Your task to perform on an android device: move a message to another label in the gmail app Image 0: 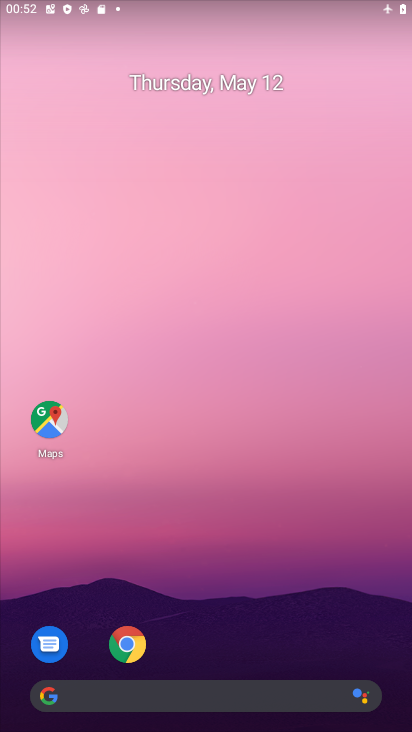
Step 0: drag from (260, 624) to (267, 308)
Your task to perform on an android device: move a message to another label in the gmail app Image 1: 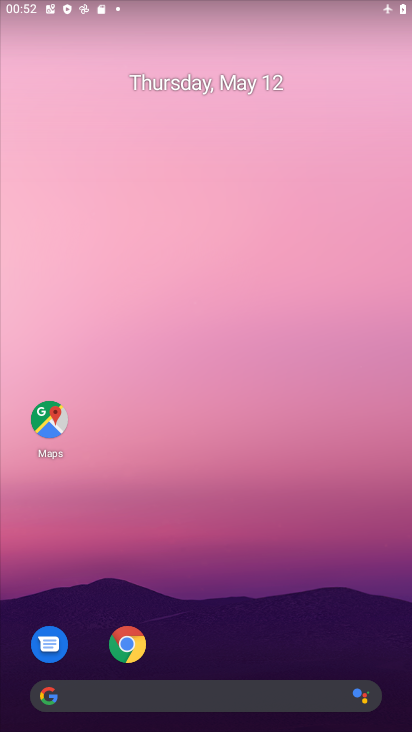
Step 1: drag from (268, 626) to (289, 150)
Your task to perform on an android device: move a message to another label in the gmail app Image 2: 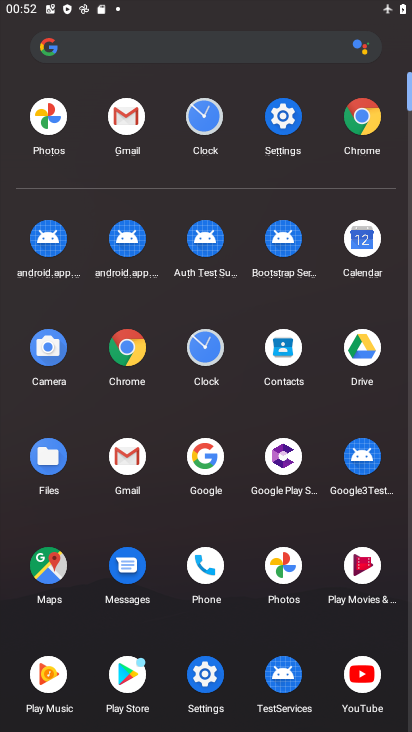
Step 2: click (130, 123)
Your task to perform on an android device: move a message to another label in the gmail app Image 3: 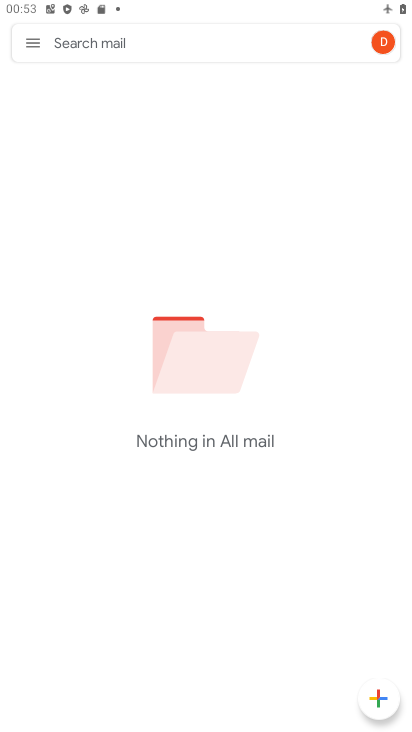
Step 3: task complete